Your task to perform on an android device: add a contact in the contacts app Image 0: 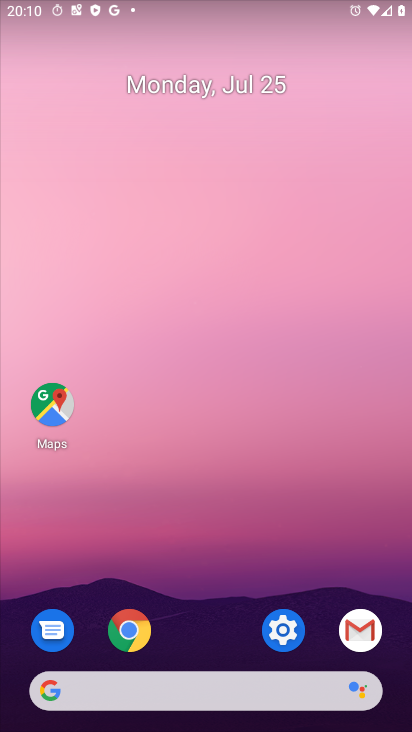
Step 0: drag from (247, 701) to (327, 102)
Your task to perform on an android device: add a contact in the contacts app Image 1: 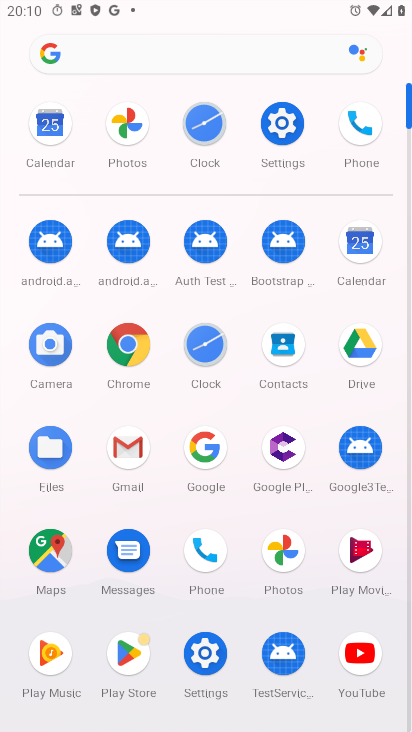
Step 1: click (217, 555)
Your task to perform on an android device: add a contact in the contacts app Image 2: 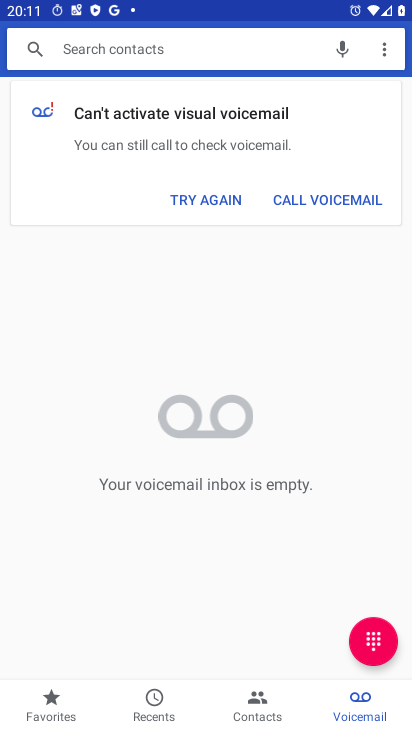
Step 2: click (251, 707)
Your task to perform on an android device: add a contact in the contacts app Image 3: 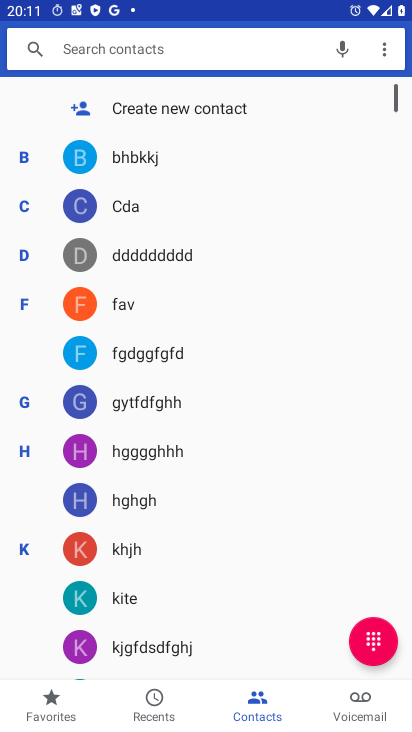
Step 3: click (150, 113)
Your task to perform on an android device: add a contact in the contacts app Image 4: 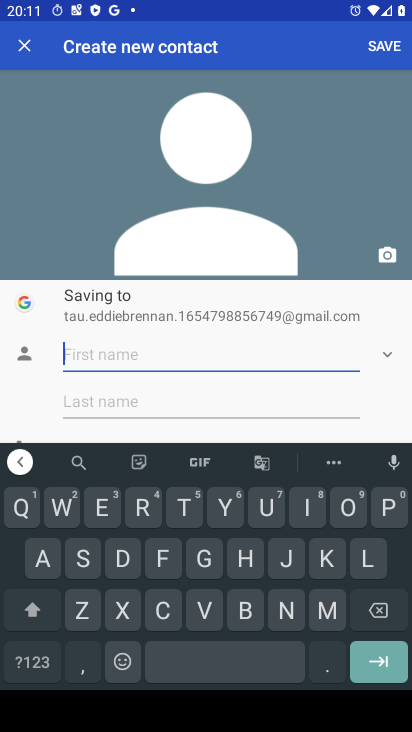
Step 4: click (167, 563)
Your task to perform on an android device: add a contact in the contacts app Image 5: 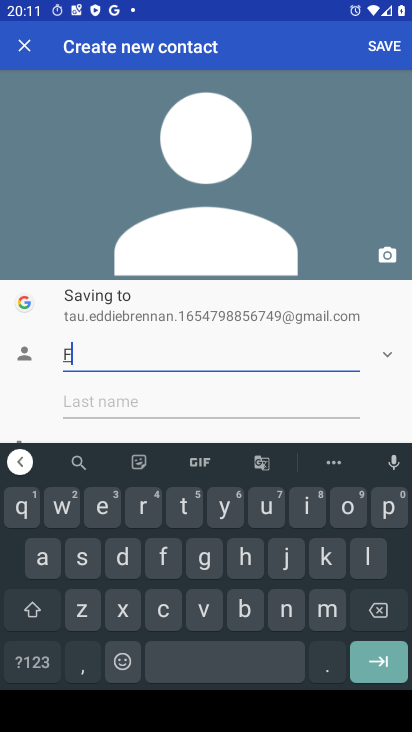
Step 5: click (207, 556)
Your task to perform on an android device: add a contact in the contacts app Image 6: 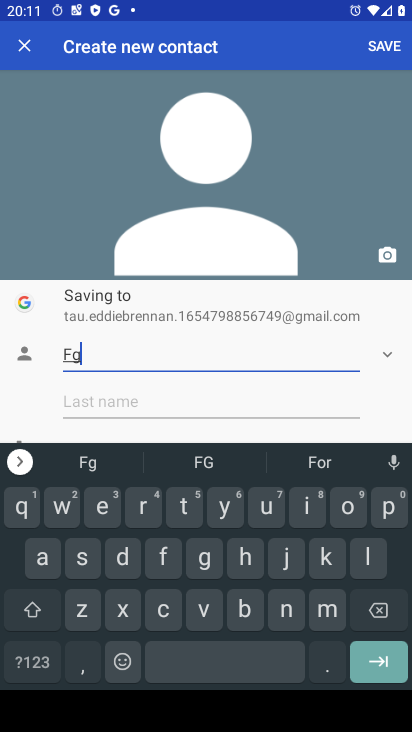
Step 6: click (197, 580)
Your task to perform on an android device: add a contact in the contacts app Image 7: 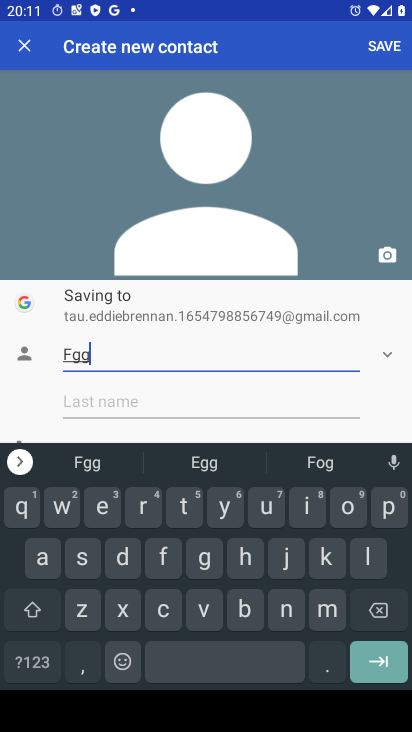
Step 7: click (112, 437)
Your task to perform on an android device: add a contact in the contacts app Image 8: 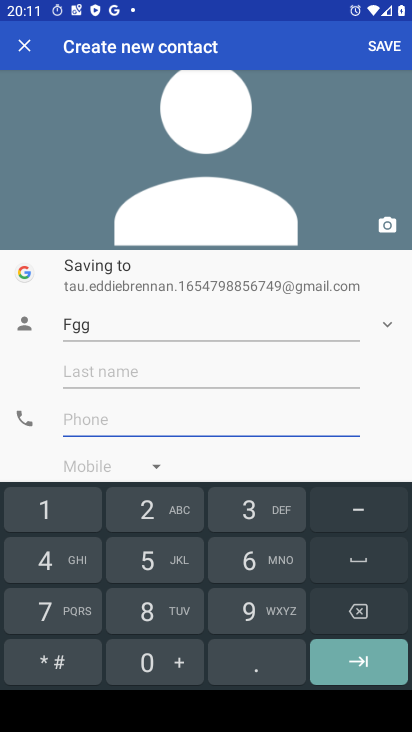
Step 8: click (149, 572)
Your task to perform on an android device: add a contact in the contacts app Image 9: 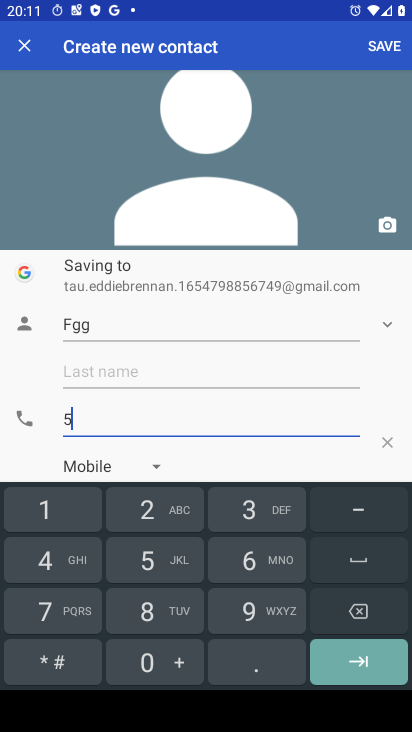
Step 9: click (61, 542)
Your task to perform on an android device: add a contact in the contacts app Image 10: 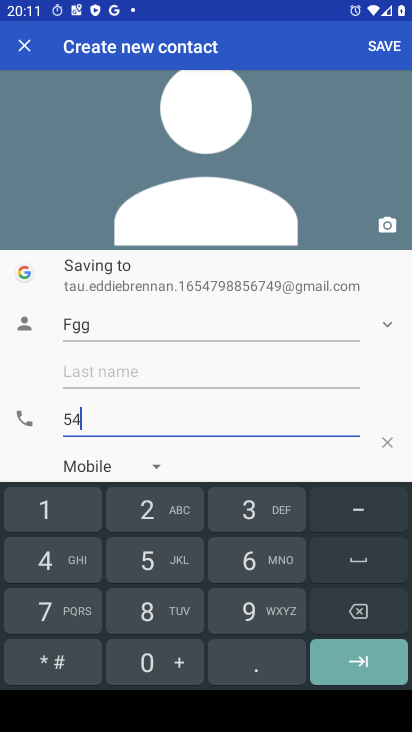
Step 10: click (65, 522)
Your task to perform on an android device: add a contact in the contacts app Image 11: 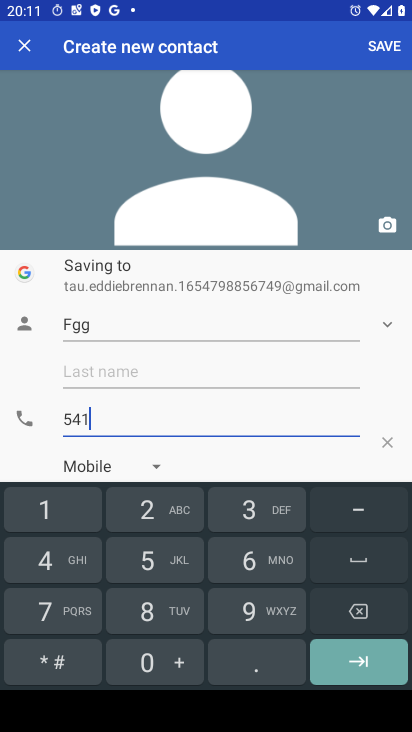
Step 11: click (154, 500)
Your task to perform on an android device: add a contact in the contacts app Image 12: 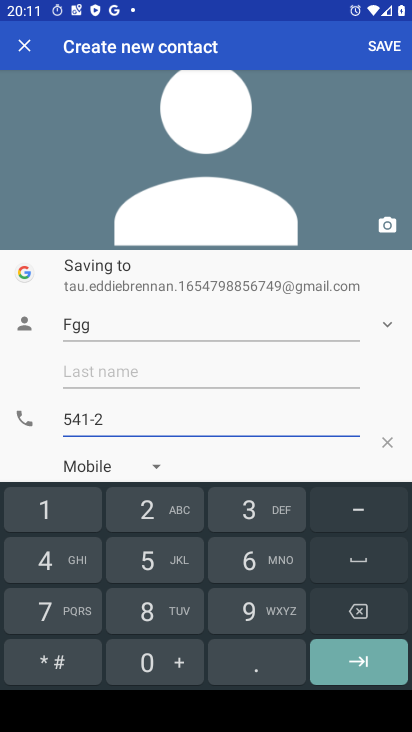
Step 12: click (146, 602)
Your task to perform on an android device: add a contact in the contacts app Image 13: 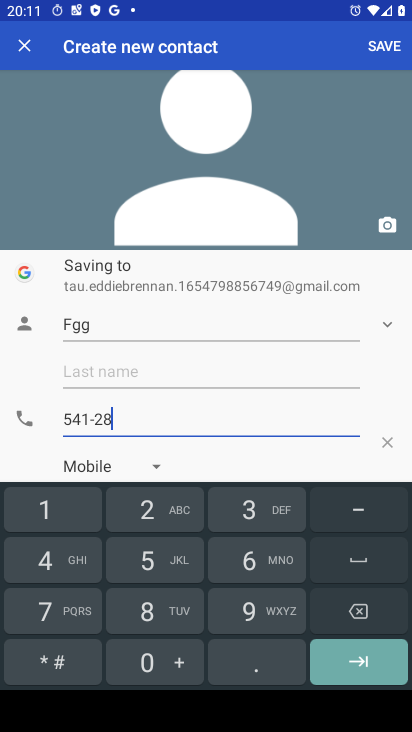
Step 13: click (239, 583)
Your task to perform on an android device: add a contact in the contacts app Image 14: 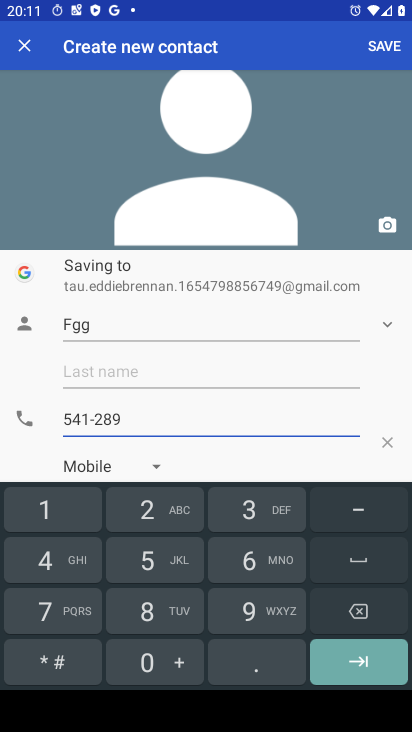
Step 14: click (370, 49)
Your task to perform on an android device: add a contact in the contacts app Image 15: 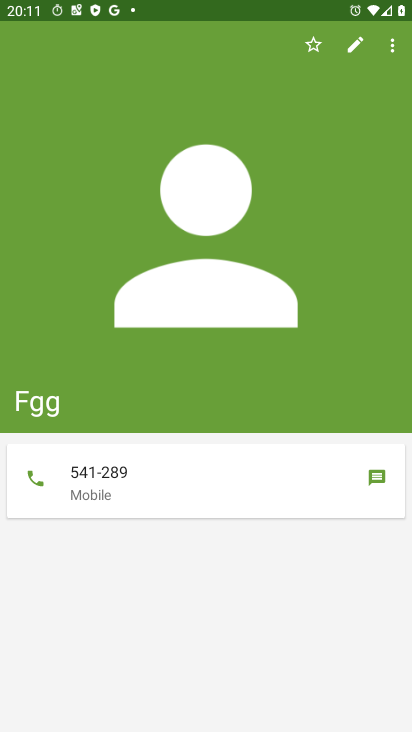
Step 15: task complete